Your task to perform on an android device: Open sound settings Image 0: 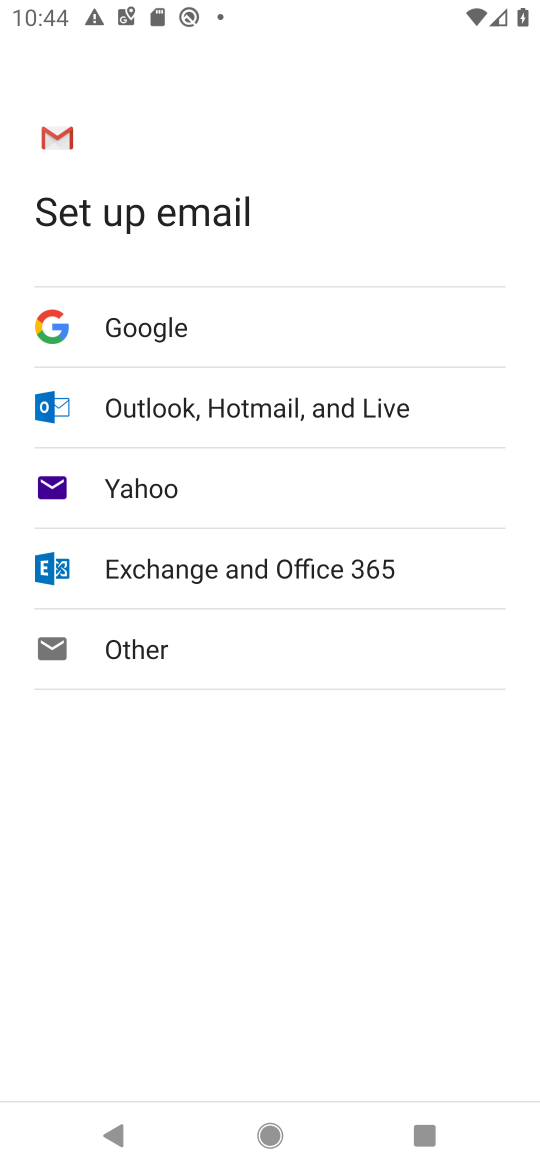
Step 0: press home button
Your task to perform on an android device: Open sound settings Image 1: 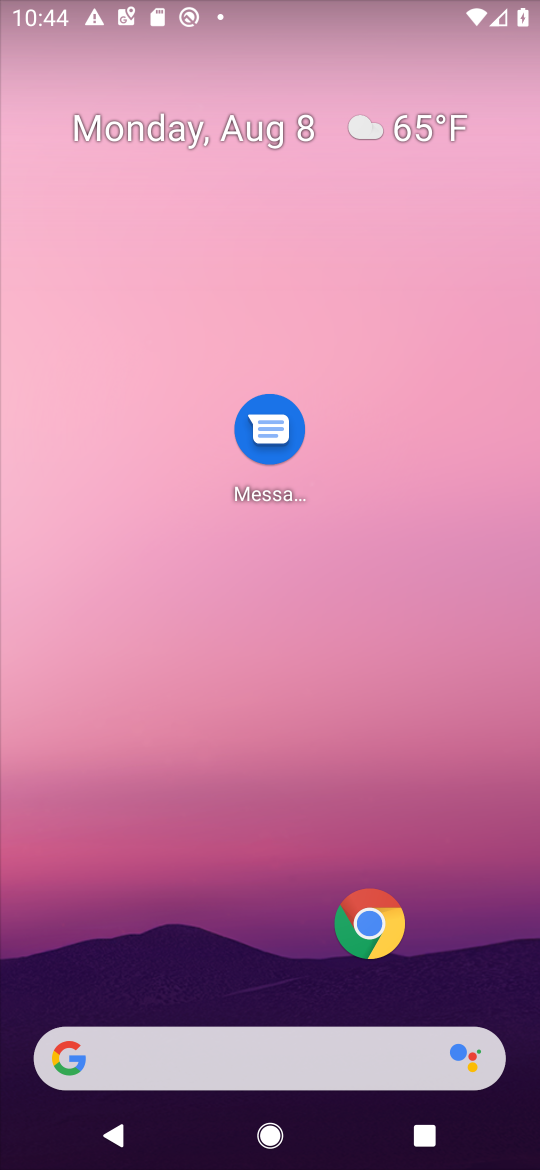
Step 1: drag from (155, 757) to (276, 346)
Your task to perform on an android device: Open sound settings Image 2: 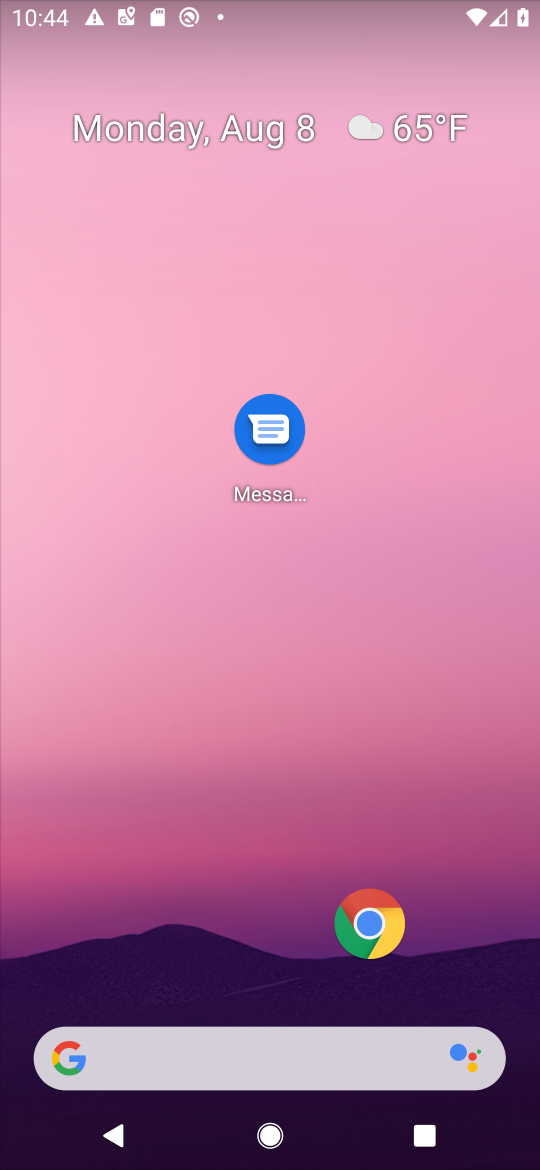
Step 2: drag from (25, 1117) to (155, 228)
Your task to perform on an android device: Open sound settings Image 3: 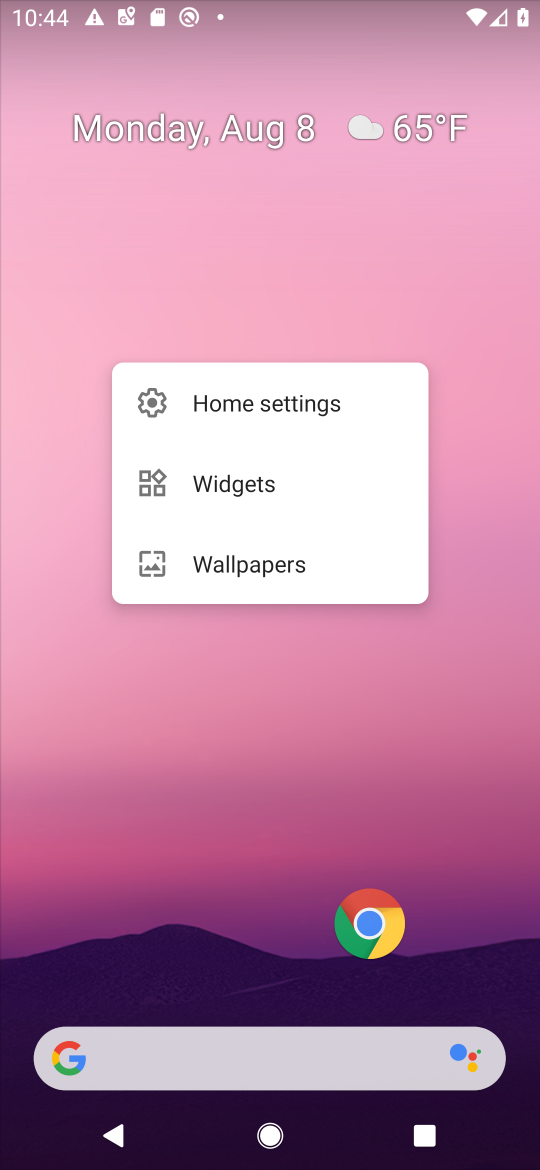
Step 3: click (54, 1150)
Your task to perform on an android device: Open sound settings Image 4: 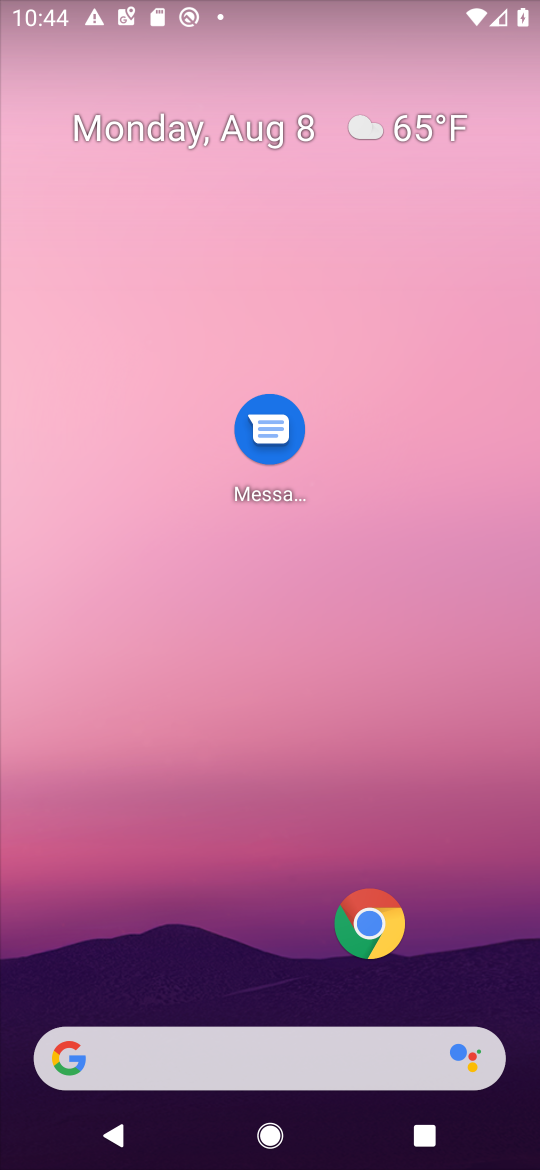
Step 4: drag from (54, 1150) to (240, 434)
Your task to perform on an android device: Open sound settings Image 5: 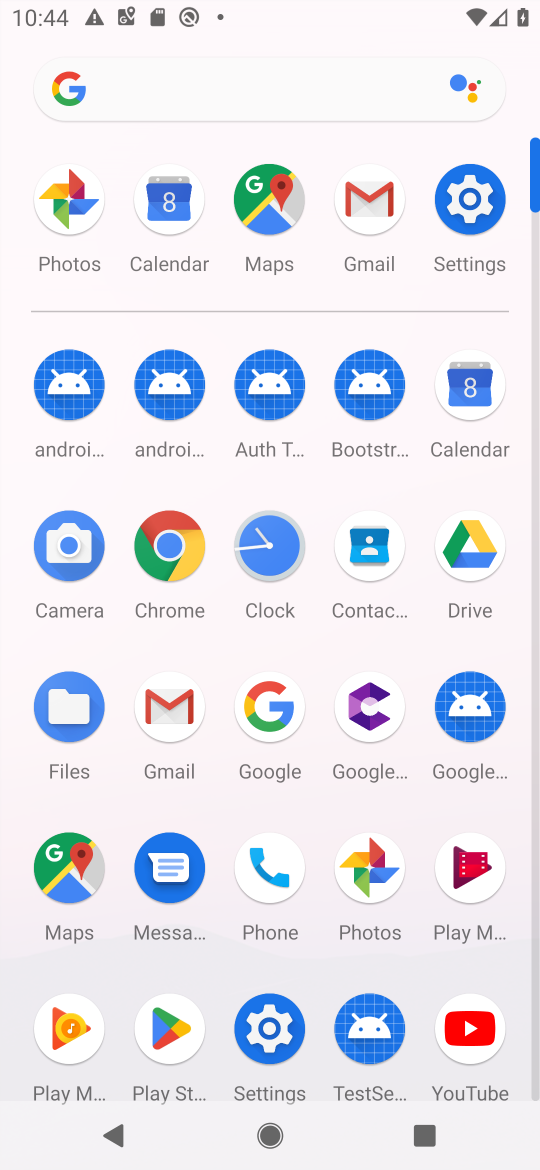
Step 5: click (270, 1045)
Your task to perform on an android device: Open sound settings Image 6: 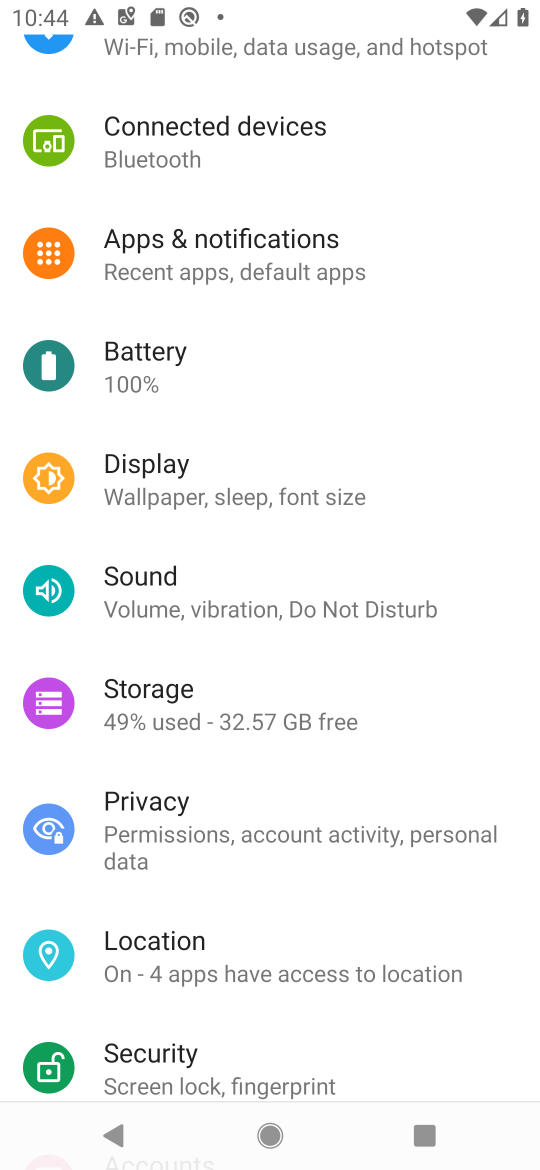
Step 6: click (190, 595)
Your task to perform on an android device: Open sound settings Image 7: 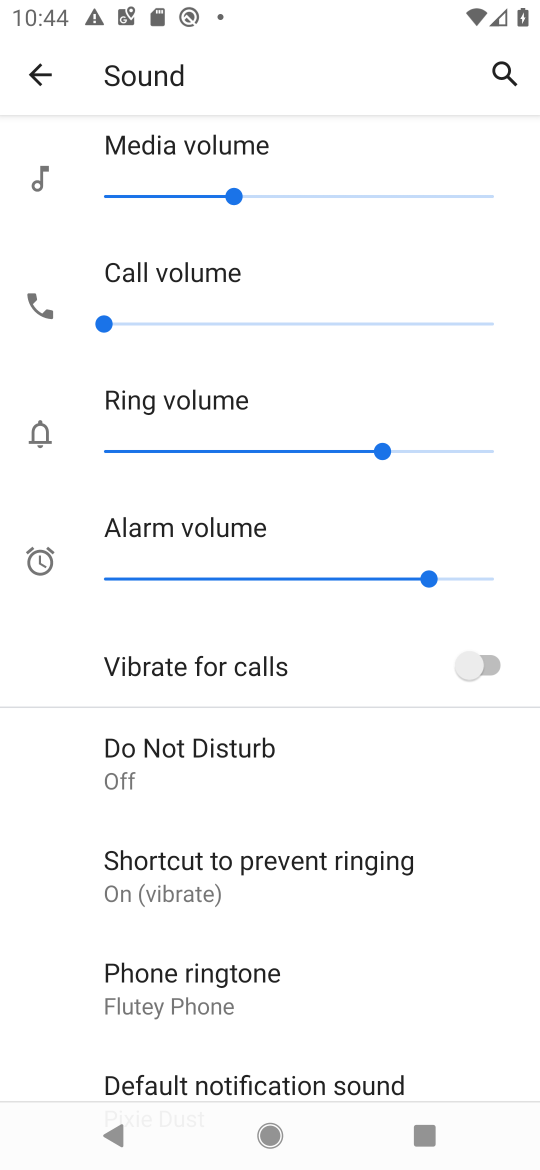
Step 7: task complete